Your task to perform on an android device: Open maps Image 0: 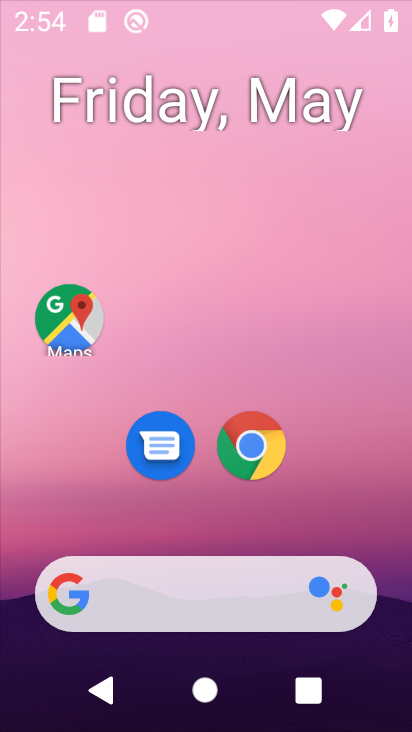
Step 0: click (278, 233)
Your task to perform on an android device: Open maps Image 1: 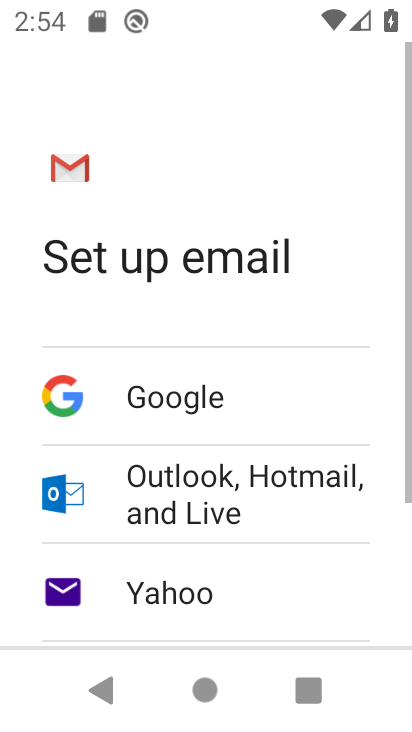
Step 1: press home button
Your task to perform on an android device: Open maps Image 2: 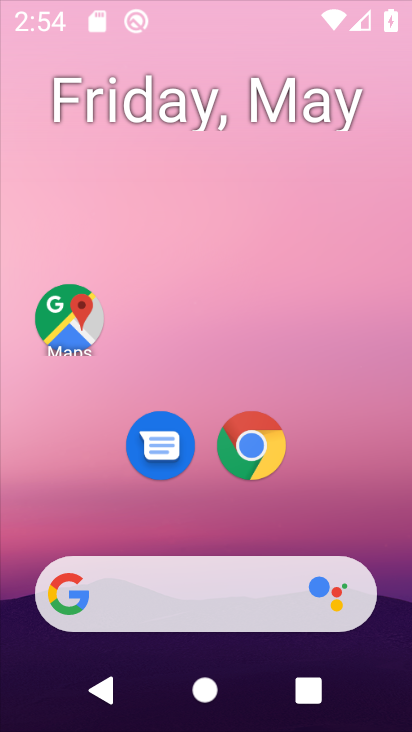
Step 2: drag from (169, 589) to (282, 227)
Your task to perform on an android device: Open maps Image 3: 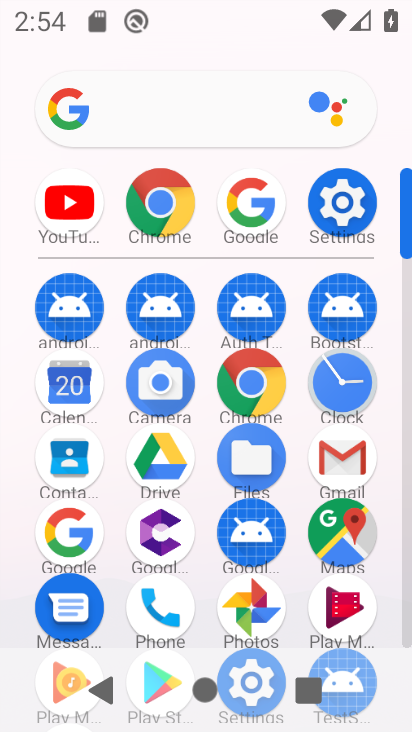
Step 3: click (345, 538)
Your task to perform on an android device: Open maps Image 4: 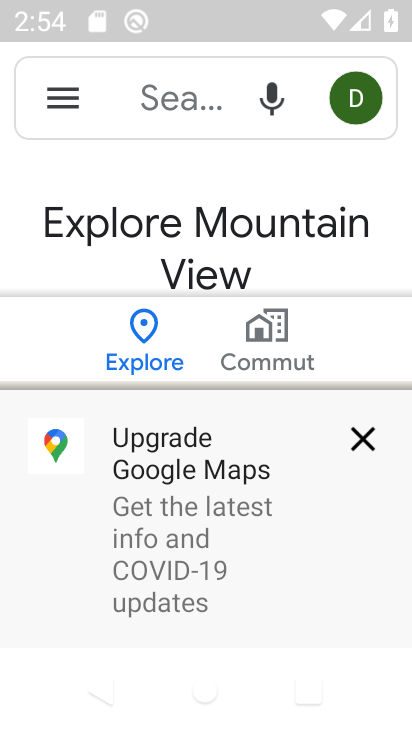
Step 4: click (381, 442)
Your task to perform on an android device: Open maps Image 5: 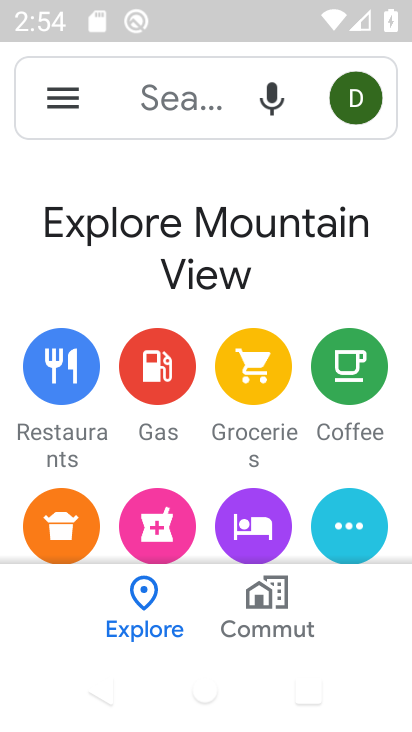
Step 5: task complete